Your task to perform on an android device: Open Reddit.com Image 0: 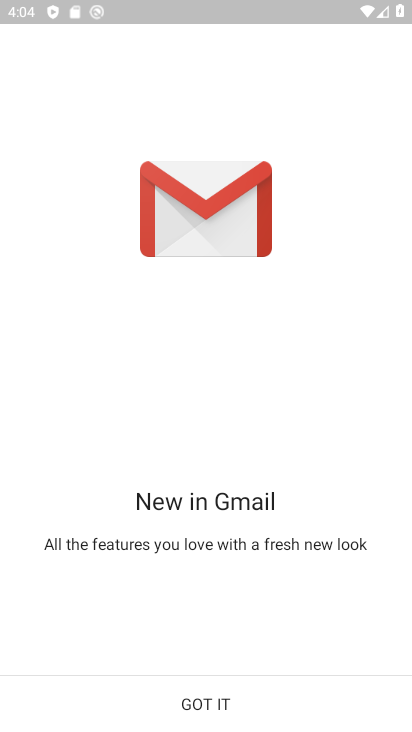
Step 0: click (259, 701)
Your task to perform on an android device: Open Reddit.com Image 1: 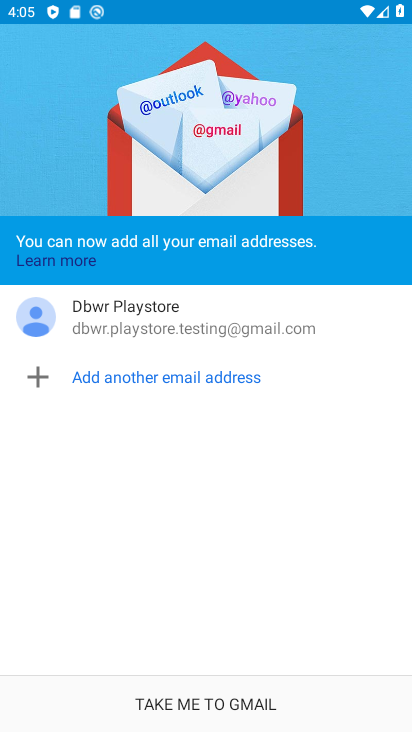
Step 1: click (266, 703)
Your task to perform on an android device: Open Reddit.com Image 2: 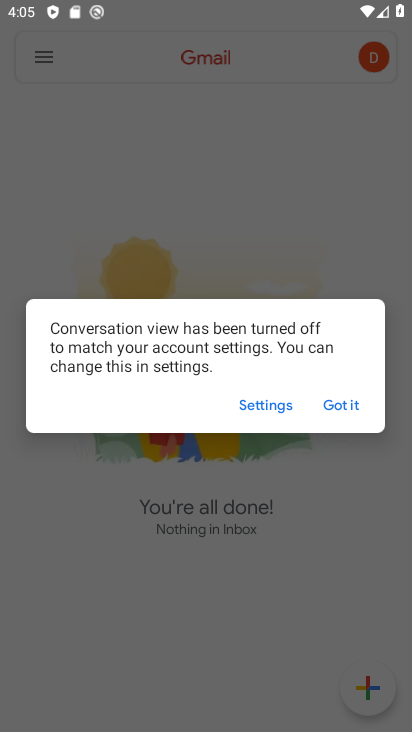
Step 2: press home button
Your task to perform on an android device: Open Reddit.com Image 3: 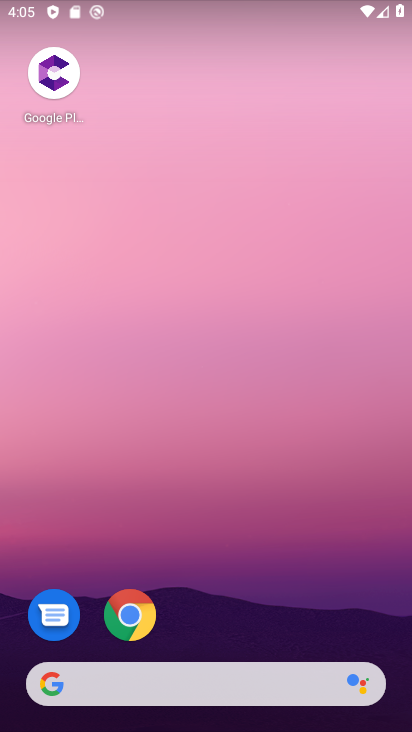
Step 3: click (150, 684)
Your task to perform on an android device: Open Reddit.com Image 4: 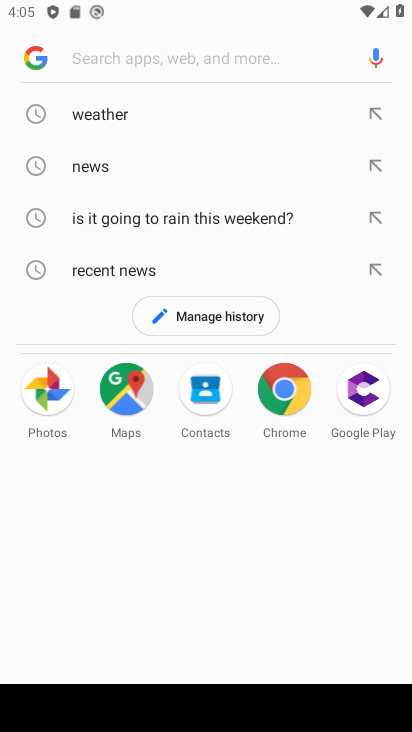
Step 4: type "reddit.com"
Your task to perform on an android device: Open Reddit.com Image 5: 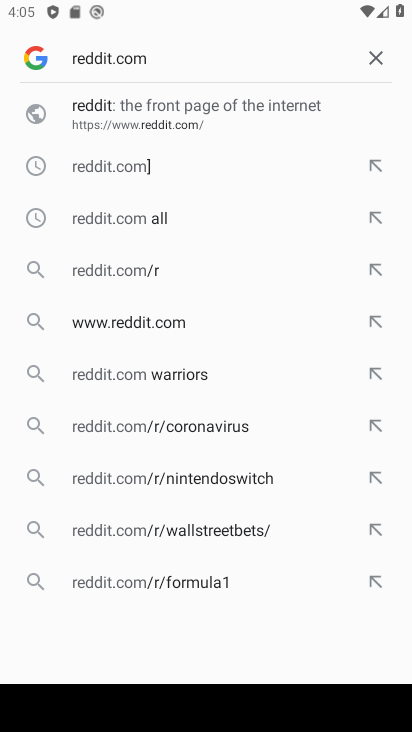
Step 5: click (87, 115)
Your task to perform on an android device: Open Reddit.com Image 6: 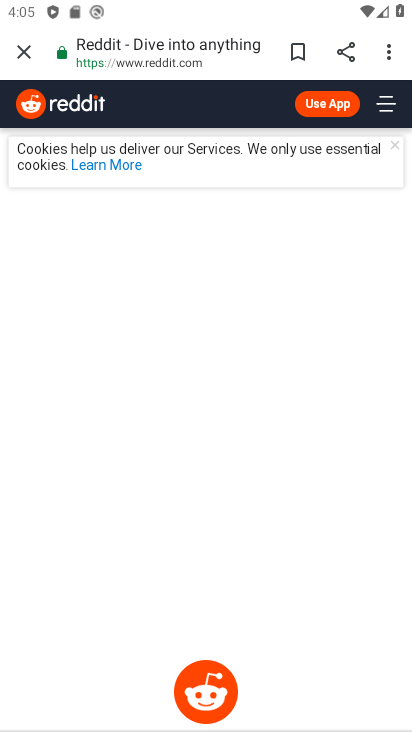
Step 6: task complete